Your task to perform on an android device: What is the recent news? Image 0: 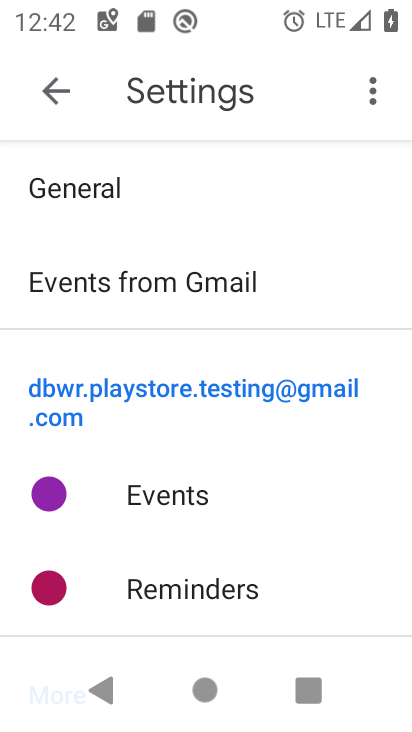
Step 0: press home button
Your task to perform on an android device: What is the recent news? Image 1: 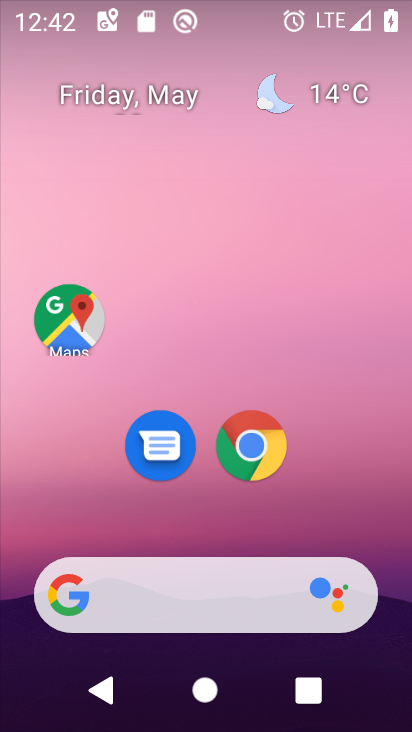
Step 1: click (150, 614)
Your task to perform on an android device: What is the recent news? Image 2: 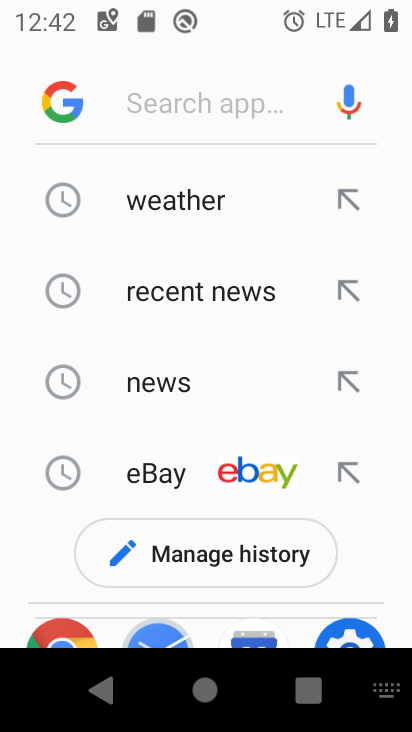
Step 2: click (146, 381)
Your task to perform on an android device: What is the recent news? Image 3: 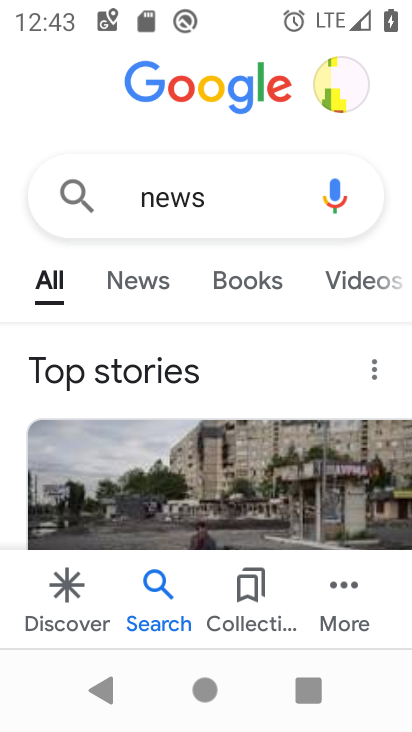
Step 3: task complete